Your task to perform on an android device: Open the Play Movies app and select the watchlist tab. Image 0: 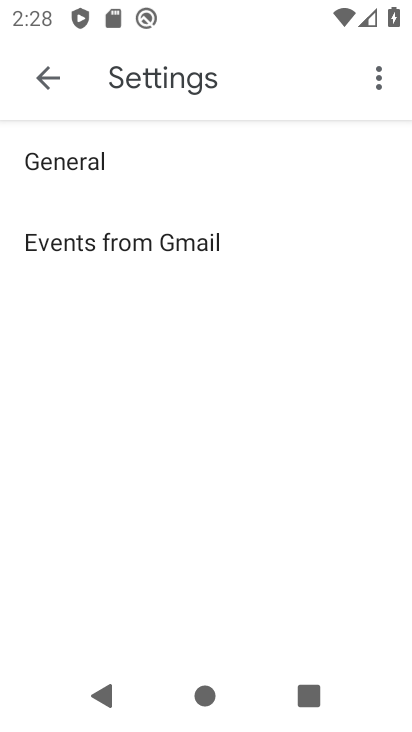
Step 0: press home button
Your task to perform on an android device: Open the Play Movies app and select the watchlist tab. Image 1: 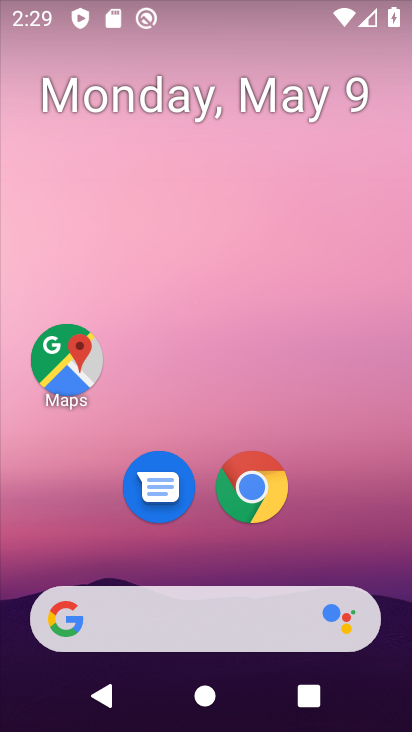
Step 1: drag from (317, 558) to (330, 1)
Your task to perform on an android device: Open the Play Movies app and select the watchlist tab. Image 2: 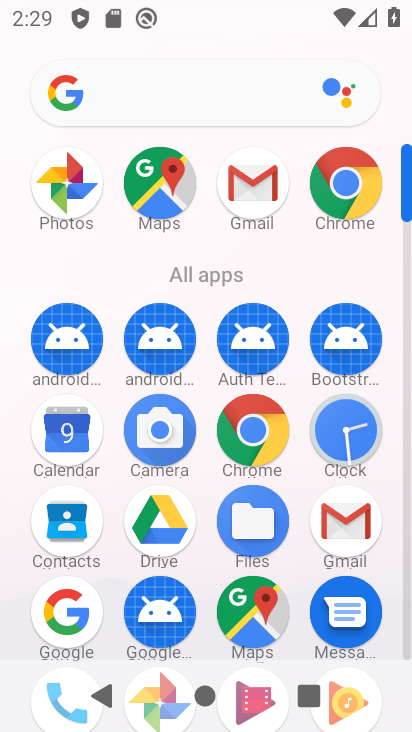
Step 2: drag from (296, 623) to (340, 329)
Your task to perform on an android device: Open the Play Movies app and select the watchlist tab. Image 3: 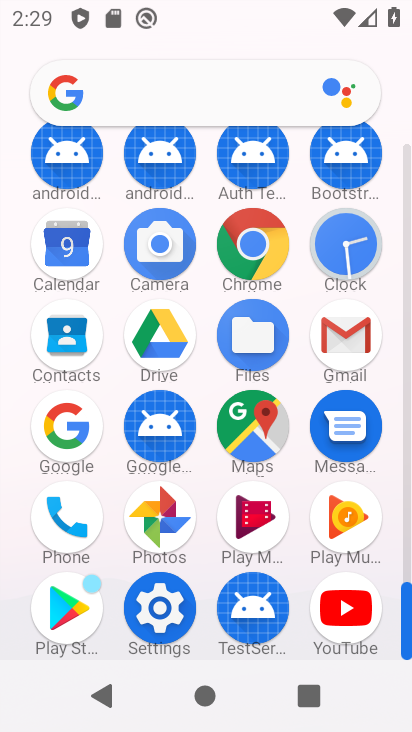
Step 3: click (264, 537)
Your task to perform on an android device: Open the Play Movies app and select the watchlist tab. Image 4: 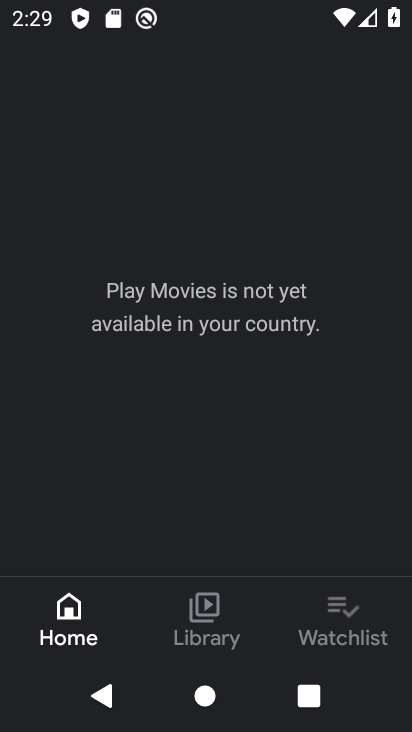
Step 4: click (311, 626)
Your task to perform on an android device: Open the Play Movies app and select the watchlist tab. Image 5: 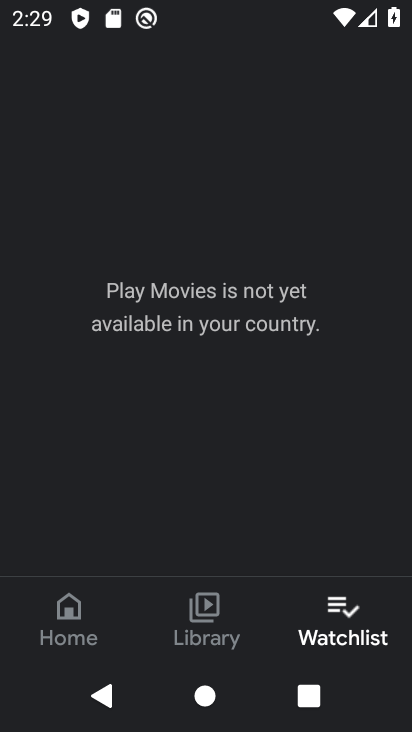
Step 5: task complete